Your task to perform on an android device: read, delete, or share a saved page in the chrome app Image 0: 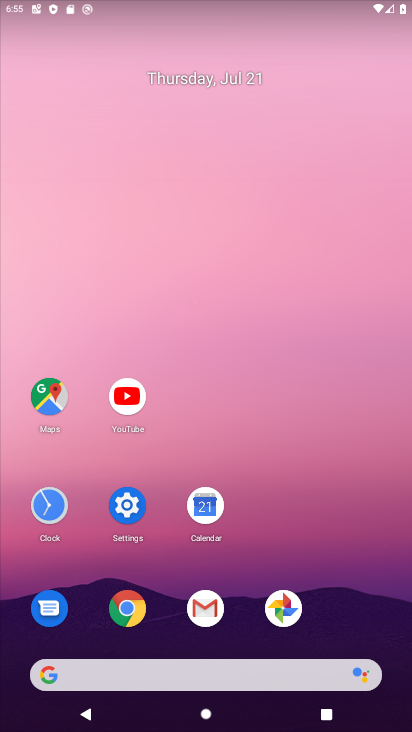
Step 0: click (126, 607)
Your task to perform on an android device: read, delete, or share a saved page in the chrome app Image 1: 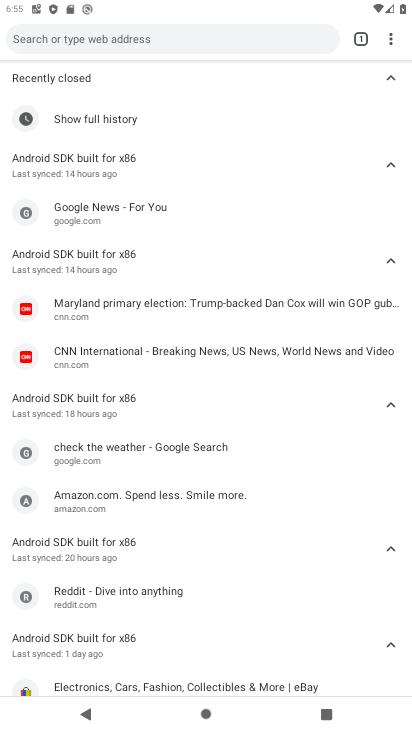
Step 1: click (393, 35)
Your task to perform on an android device: read, delete, or share a saved page in the chrome app Image 2: 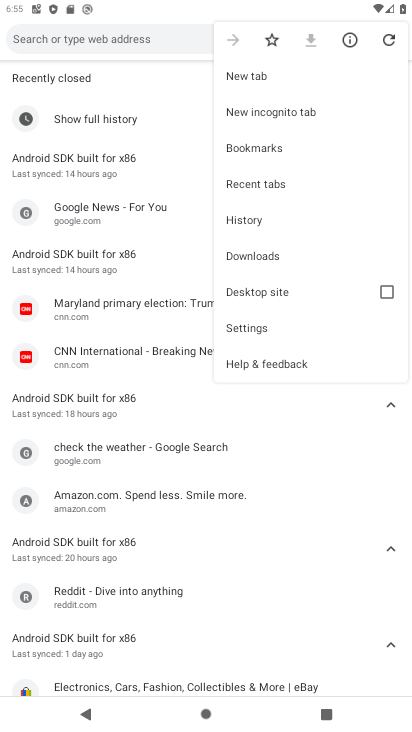
Step 2: click (250, 257)
Your task to perform on an android device: read, delete, or share a saved page in the chrome app Image 3: 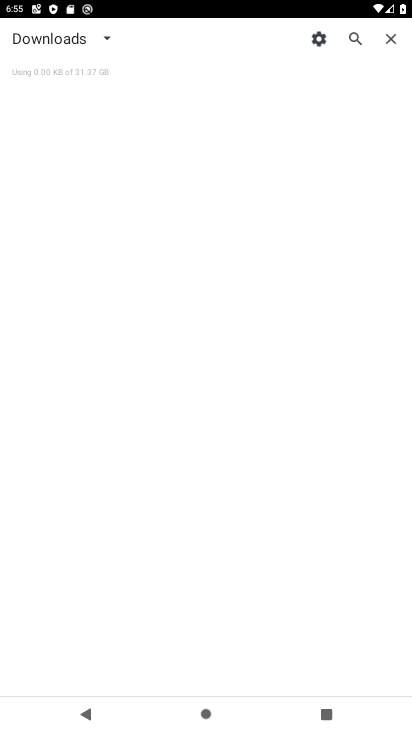
Step 3: task complete